Your task to perform on an android device: Search for vegetarian restaurants on Maps Image 0: 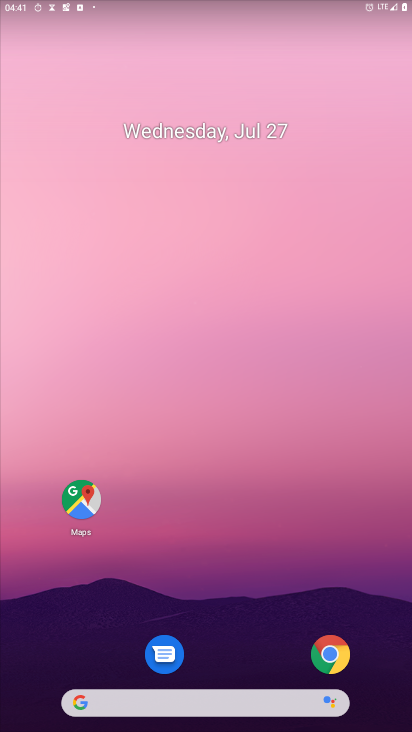
Step 0: drag from (304, 695) to (398, 9)
Your task to perform on an android device: Search for vegetarian restaurants on Maps Image 1: 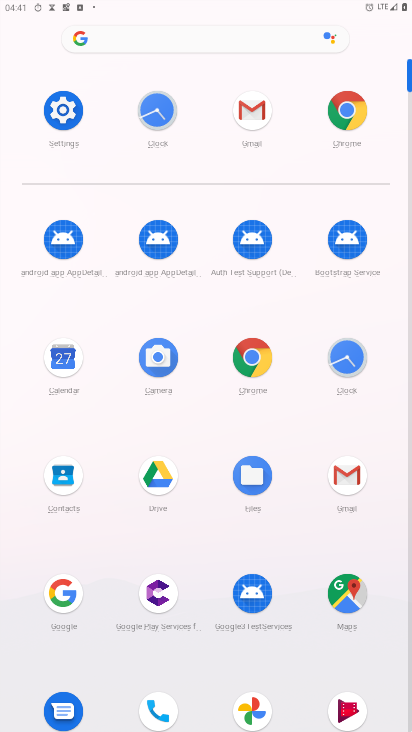
Step 1: click (340, 589)
Your task to perform on an android device: Search for vegetarian restaurants on Maps Image 2: 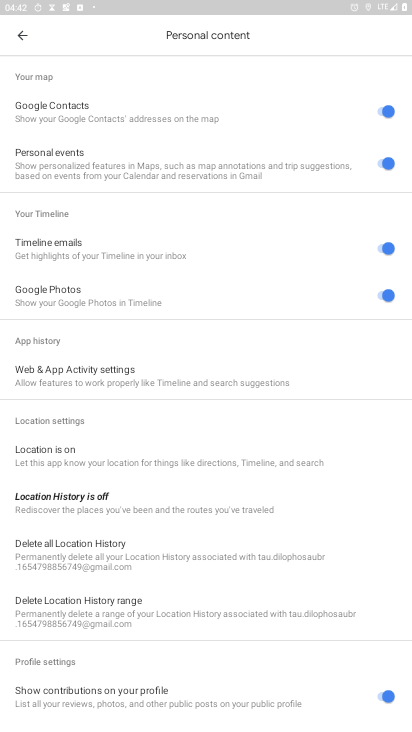
Step 2: press back button
Your task to perform on an android device: Search for vegetarian restaurants on Maps Image 3: 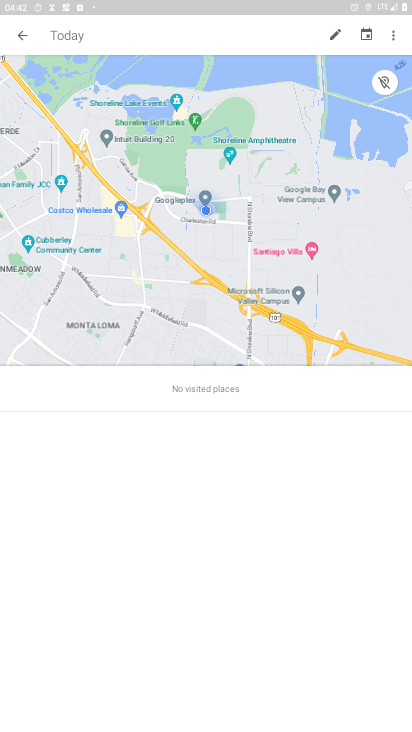
Step 3: press back button
Your task to perform on an android device: Search for vegetarian restaurants on Maps Image 4: 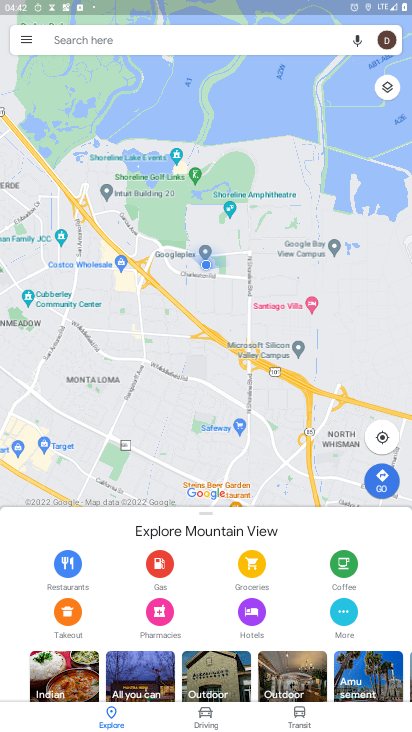
Step 4: click (166, 44)
Your task to perform on an android device: Search for vegetarian restaurants on Maps Image 5: 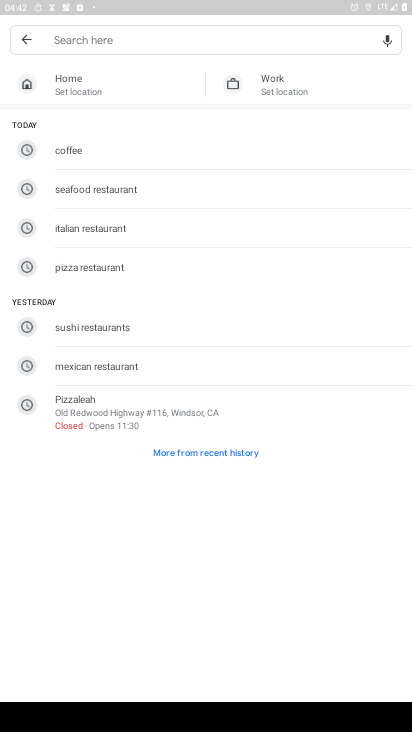
Step 5: type "vegetarian restau"
Your task to perform on an android device: Search for vegetarian restaurants on Maps Image 6: 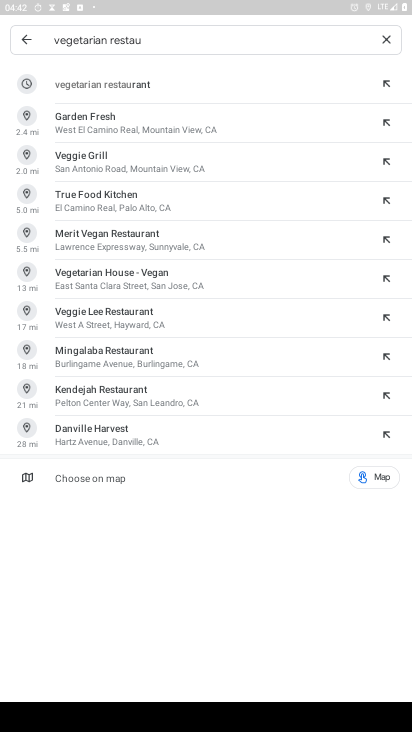
Step 6: click (152, 90)
Your task to perform on an android device: Search for vegetarian restaurants on Maps Image 7: 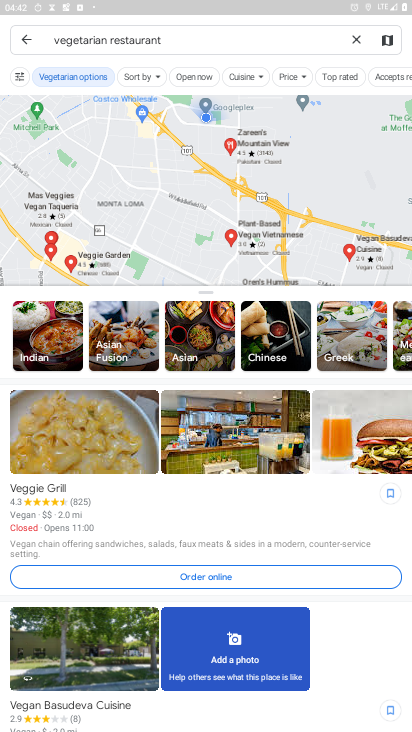
Step 7: task complete